Your task to perform on an android device: Open Chrome and go to settings Image 0: 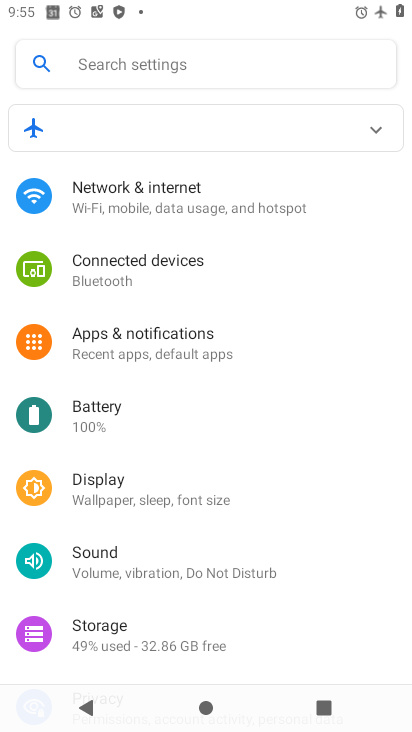
Step 0: press home button
Your task to perform on an android device: Open Chrome and go to settings Image 1: 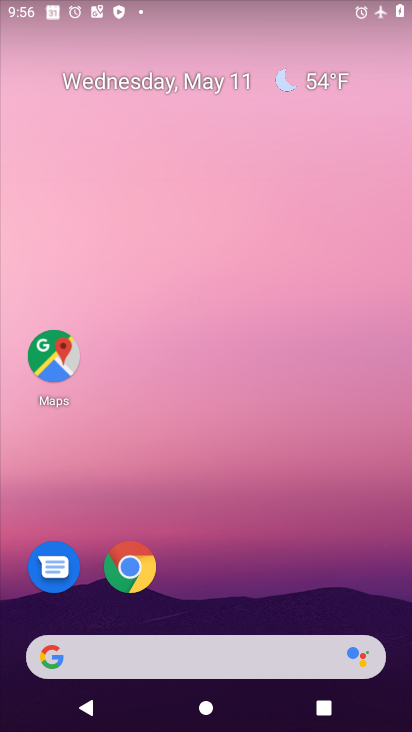
Step 1: click (109, 589)
Your task to perform on an android device: Open Chrome and go to settings Image 2: 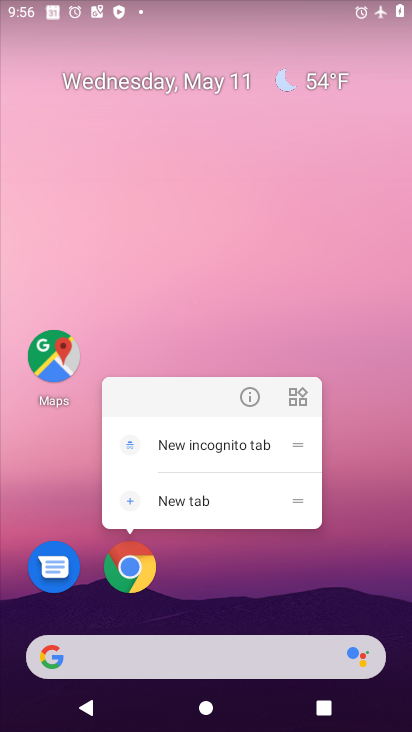
Step 2: click (131, 569)
Your task to perform on an android device: Open Chrome and go to settings Image 3: 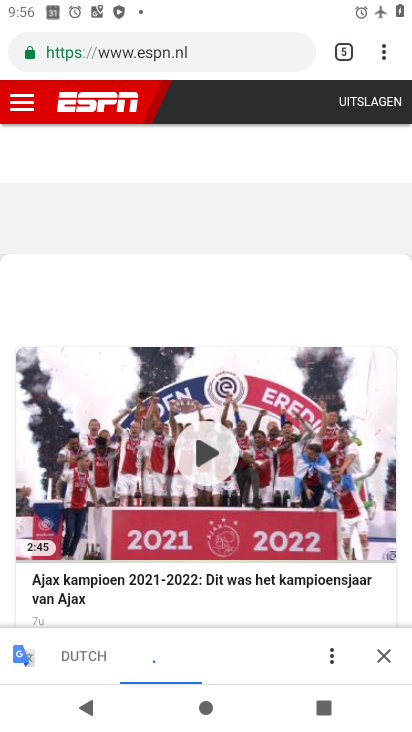
Step 3: click (378, 46)
Your task to perform on an android device: Open Chrome and go to settings Image 4: 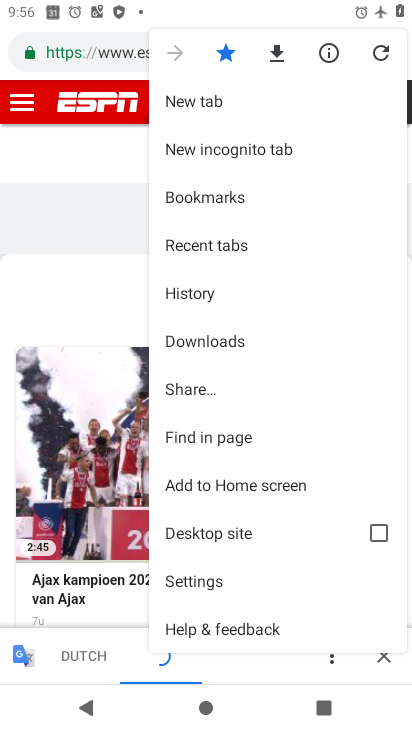
Step 4: click (207, 580)
Your task to perform on an android device: Open Chrome and go to settings Image 5: 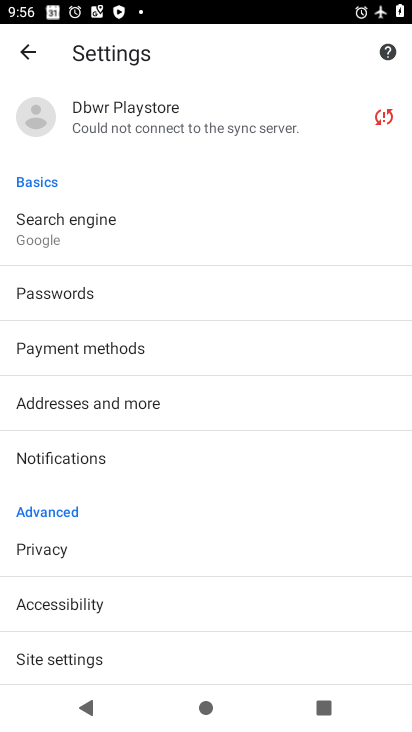
Step 5: task complete